Your task to perform on an android device: search for starred emails in the gmail app Image 0: 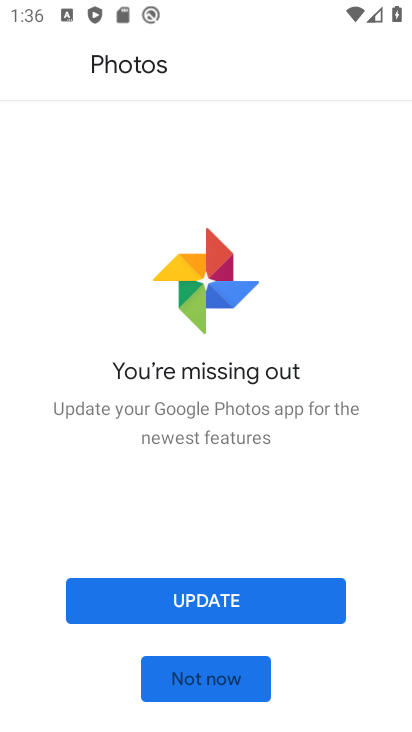
Step 0: click (189, 670)
Your task to perform on an android device: search for starred emails in the gmail app Image 1: 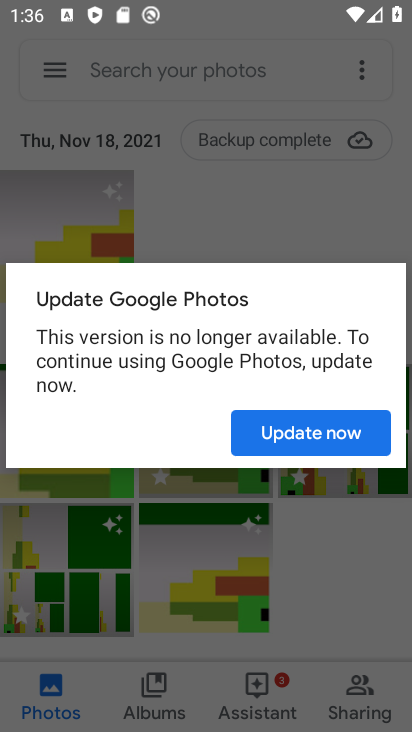
Step 1: click (309, 215)
Your task to perform on an android device: search for starred emails in the gmail app Image 2: 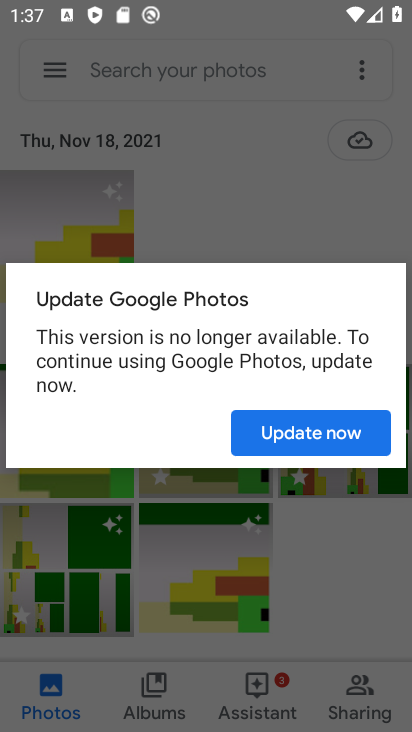
Step 2: press home button
Your task to perform on an android device: search for starred emails in the gmail app Image 3: 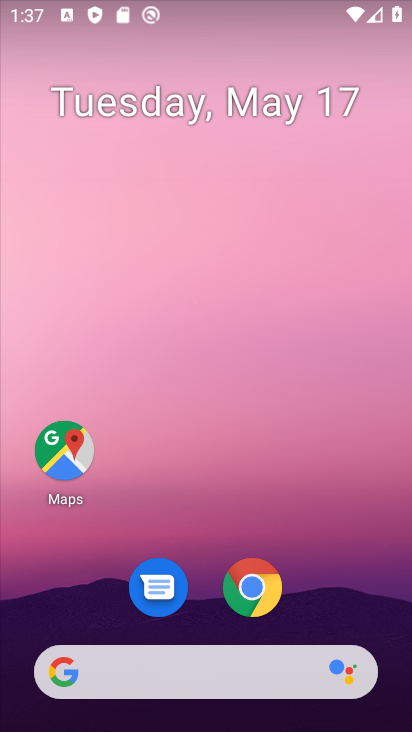
Step 3: drag from (190, 642) to (341, 0)
Your task to perform on an android device: search for starred emails in the gmail app Image 4: 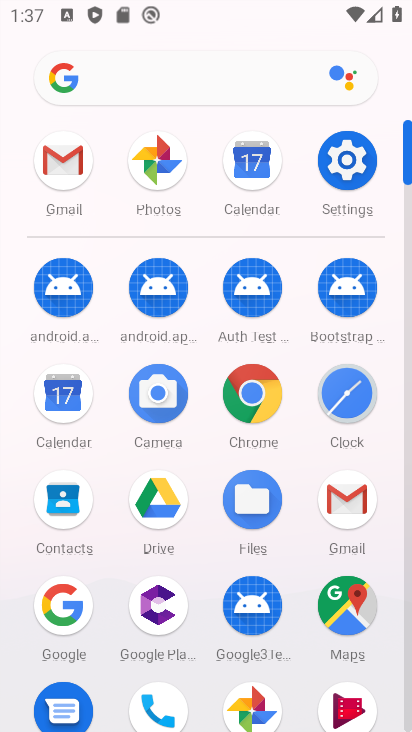
Step 4: click (366, 510)
Your task to perform on an android device: search for starred emails in the gmail app Image 5: 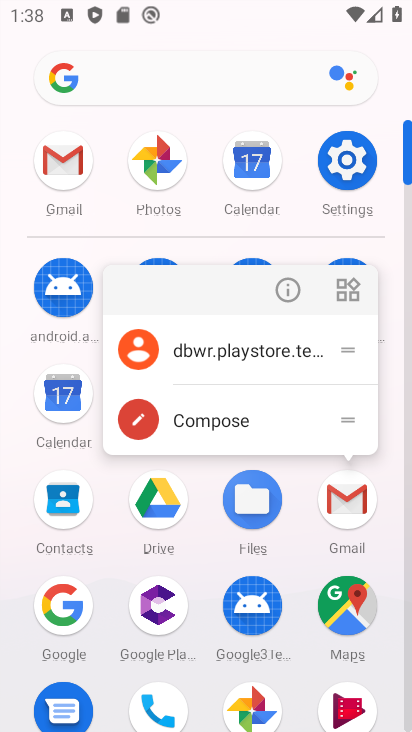
Step 5: click (273, 333)
Your task to perform on an android device: search for starred emails in the gmail app Image 6: 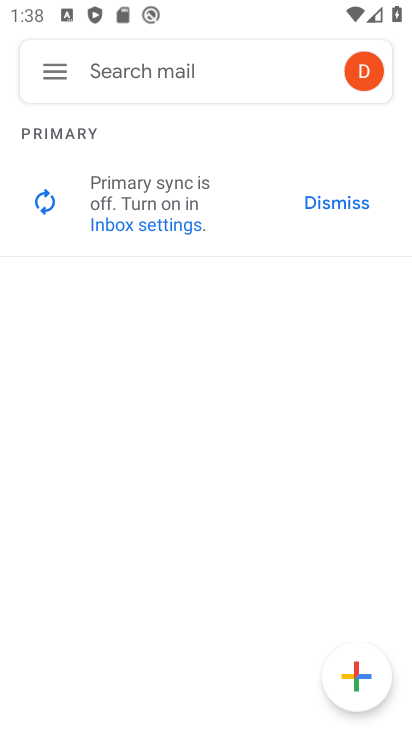
Step 6: click (270, 407)
Your task to perform on an android device: search for starred emails in the gmail app Image 7: 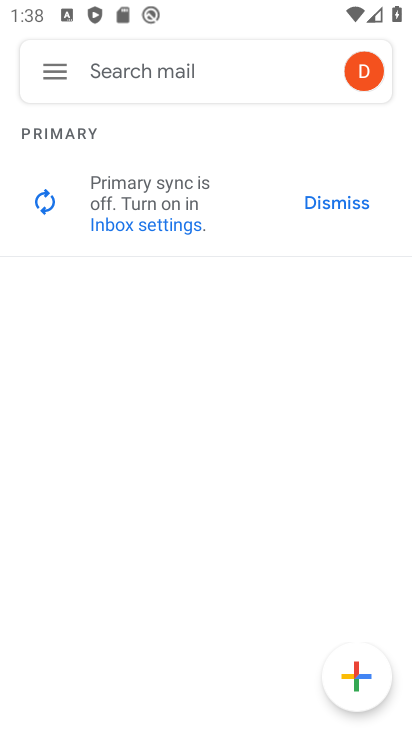
Step 7: click (27, 61)
Your task to perform on an android device: search for starred emails in the gmail app Image 8: 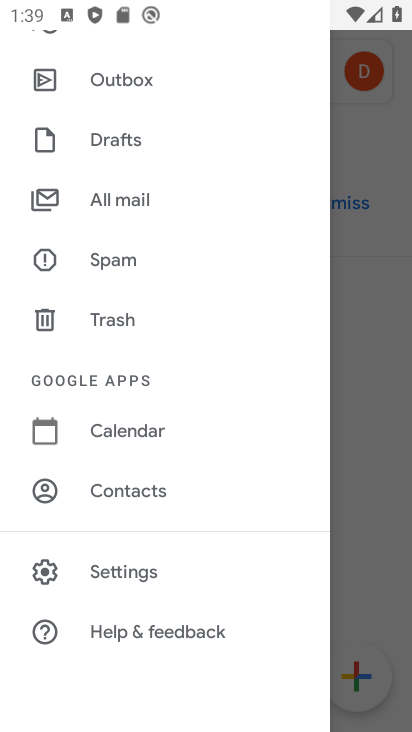
Step 8: click (188, 145)
Your task to perform on an android device: search for starred emails in the gmail app Image 9: 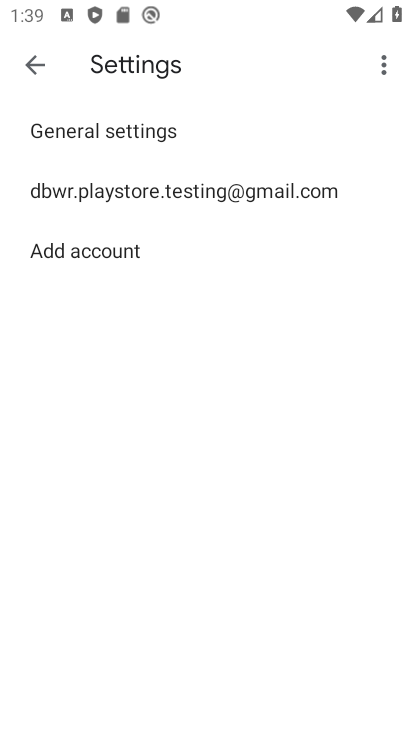
Step 9: task complete